Your task to perform on an android device: Open Amazon Image 0: 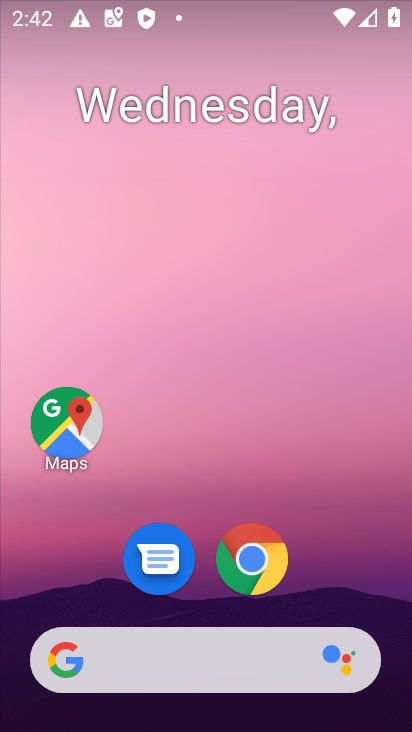
Step 0: click (269, 565)
Your task to perform on an android device: Open Amazon Image 1: 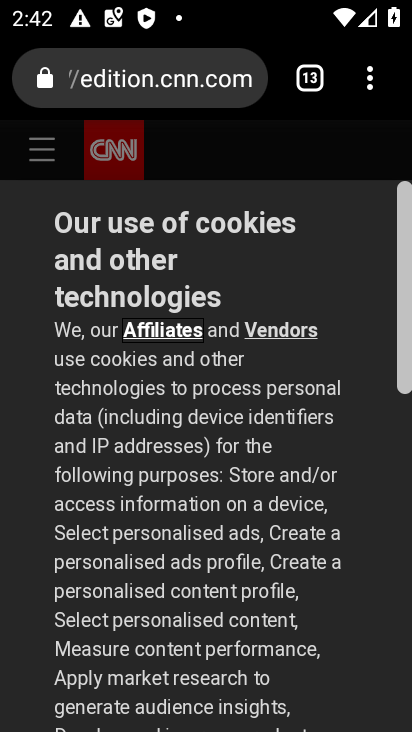
Step 1: click (373, 86)
Your task to perform on an android device: Open Amazon Image 2: 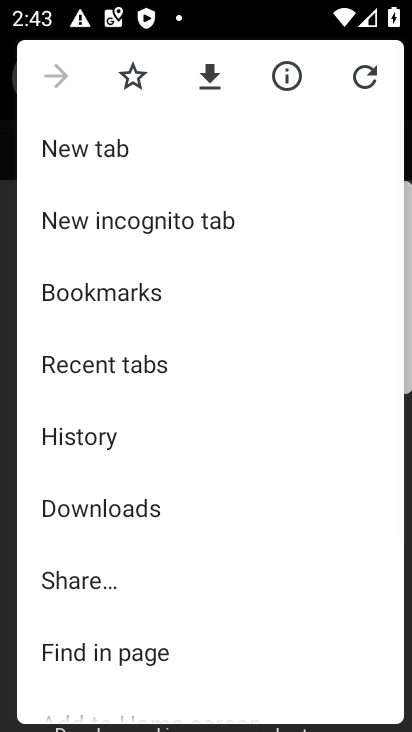
Step 2: click (63, 151)
Your task to perform on an android device: Open Amazon Image 3: 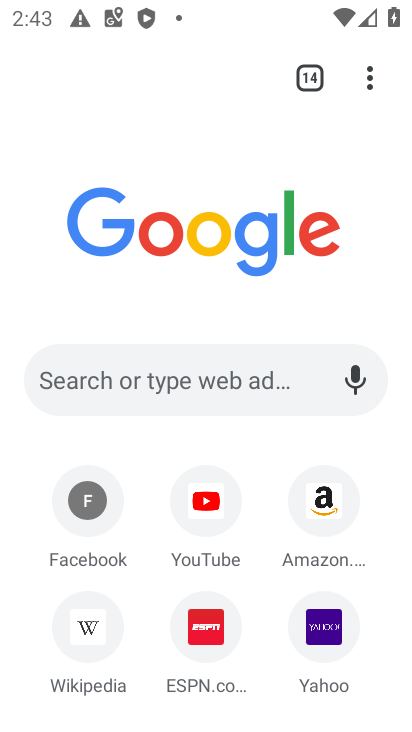
Step 3: click (314, 519)
Your task to perform on an android device: Open Amazon Image 4: 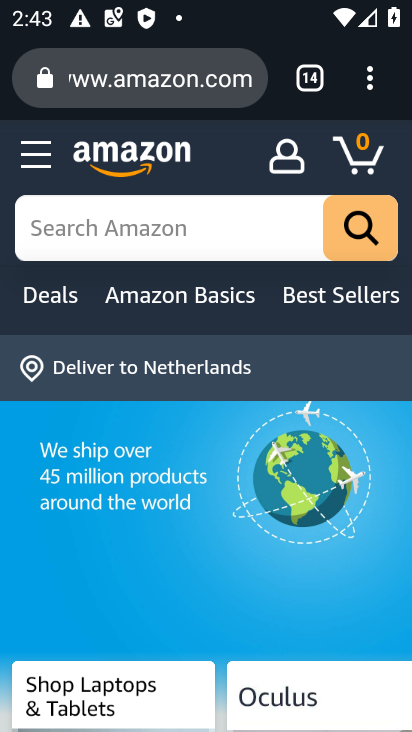
Step 4: task complete